Your task to perform on an android device: Search for cool wooden wall art on Etsy. Image 0: 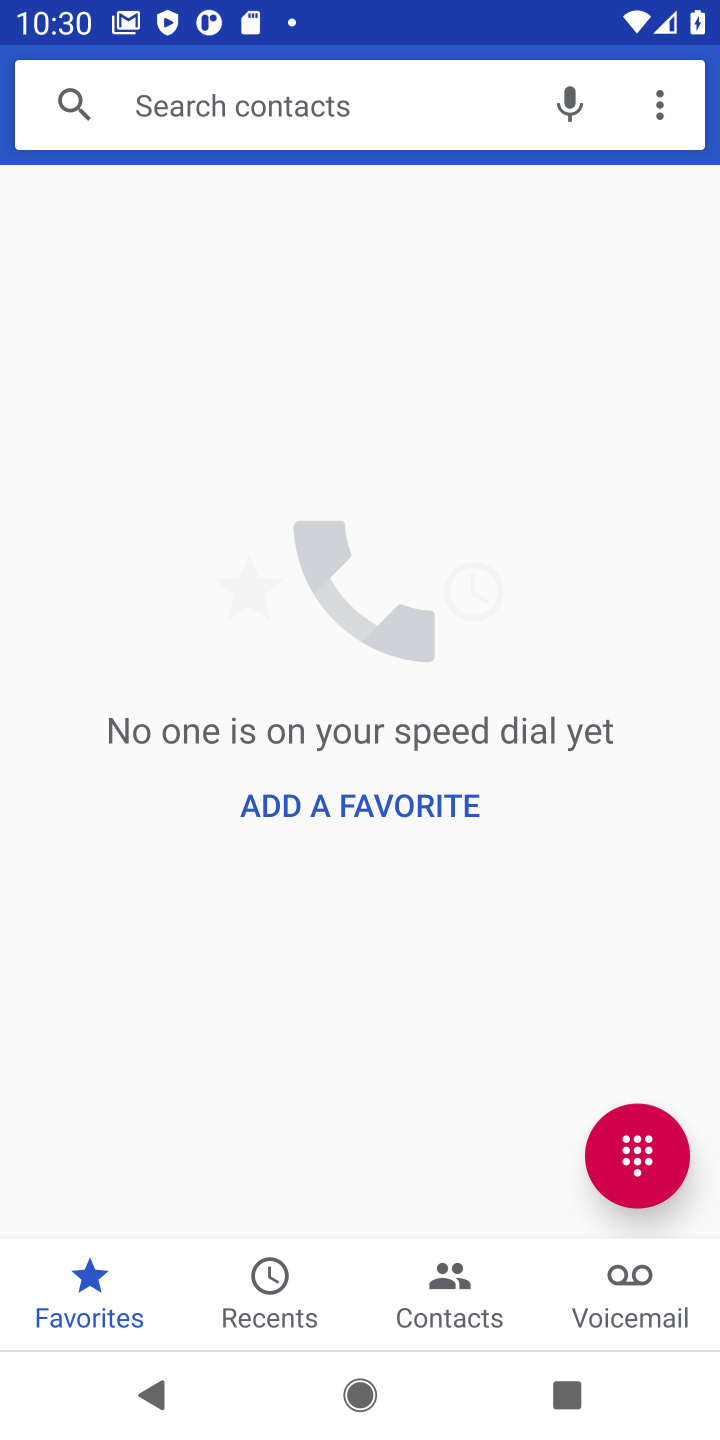
Step 0: press home button
Your task to perform on an android device: Search for cool wooden wall art on Etsy. Image 1: 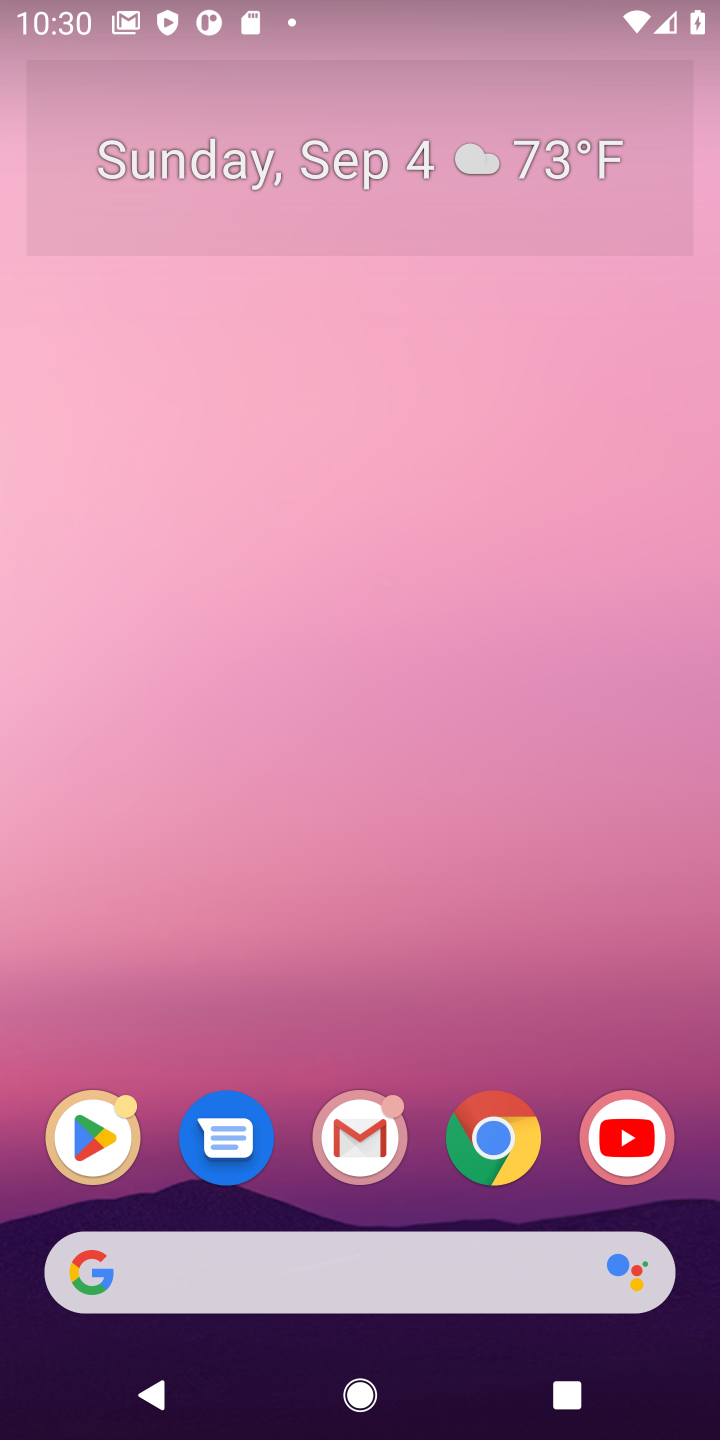
Step 1: click (475, 1120)
Your task to perform on an android device: Search for cool wooden wall art on Etsy. Image 2: 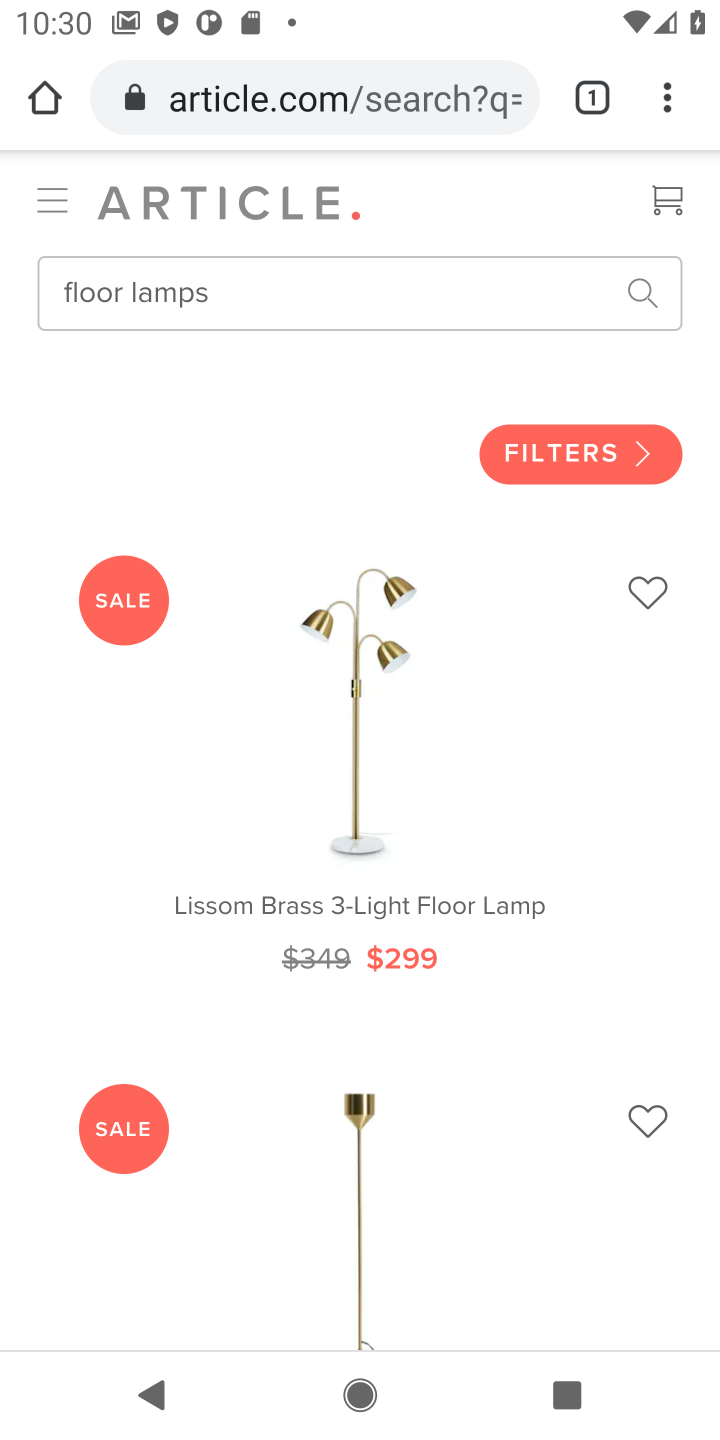
Step 2: click (364, 94)
Your task to perform on an android device: Search for cool wooden wall art on Etsy. Image 3: 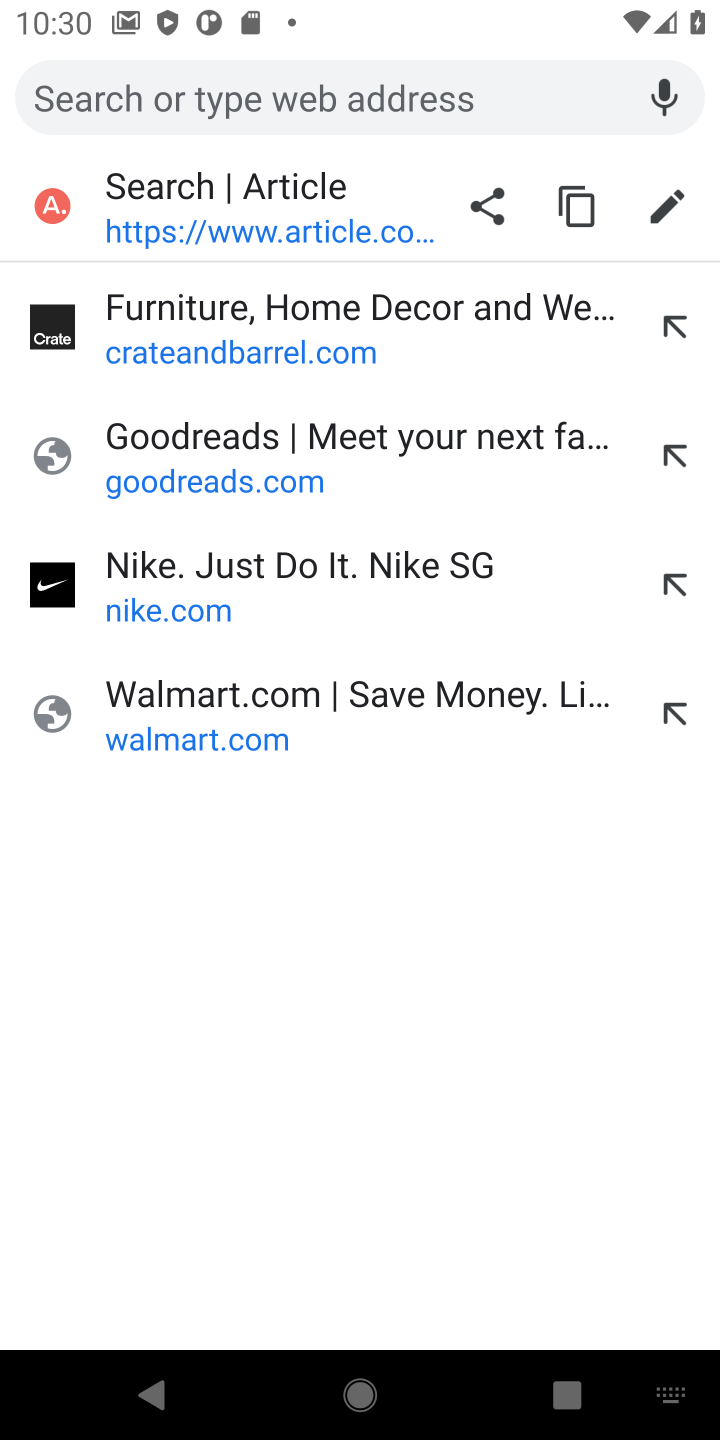
Step 3: type "etsy"
Your task to perform on an android device: Search for cool wooden wall art on Etsy. Image 4: 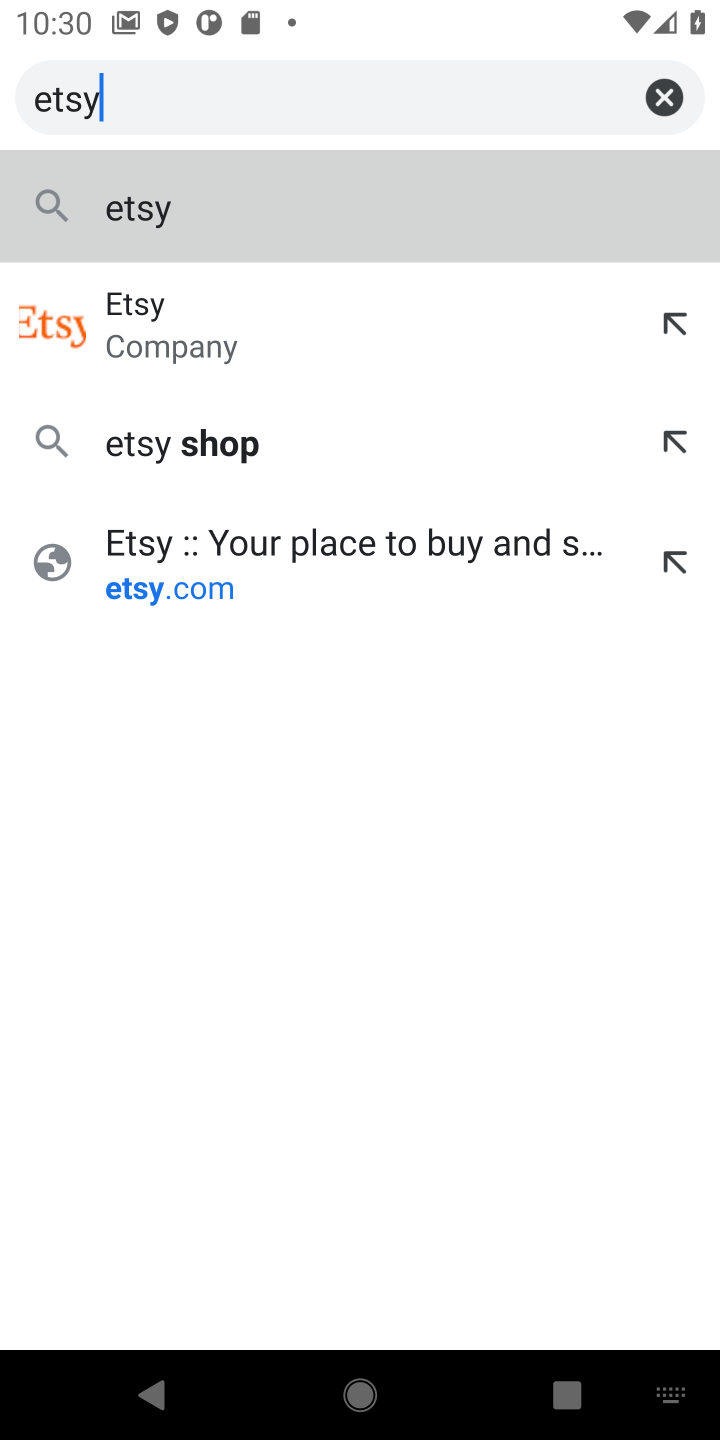
Step 4: click (296, 593)
Your task to perform on an android device: Search for cool wooden wall art on Etsy. Image 5: 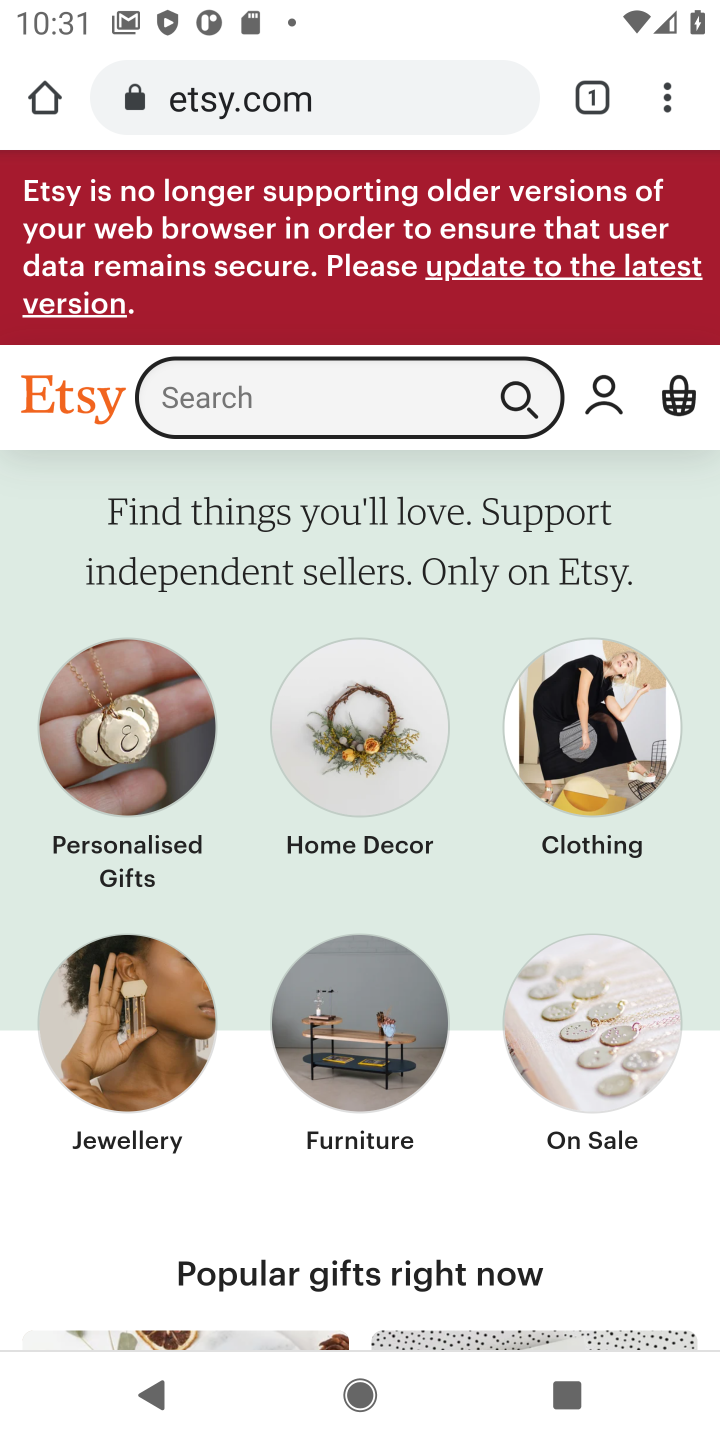
Step 5: click (328, 437)
Your task to perform on an android device: Search for cool wooden wall art on Etsy. Image 6: 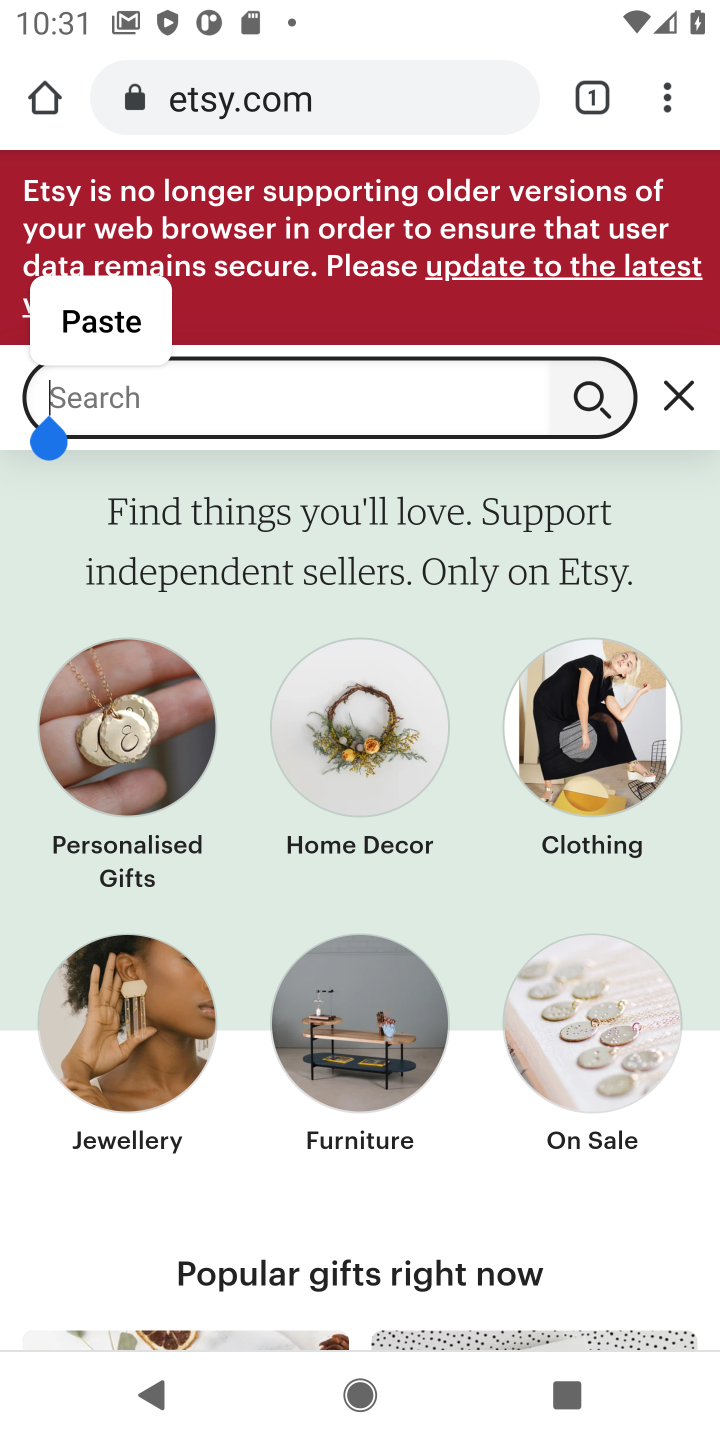
Step 6: type "cool wooden art"
Your task to perform on an android device: Search for cool wooden wall art on Etsy. Image 7: 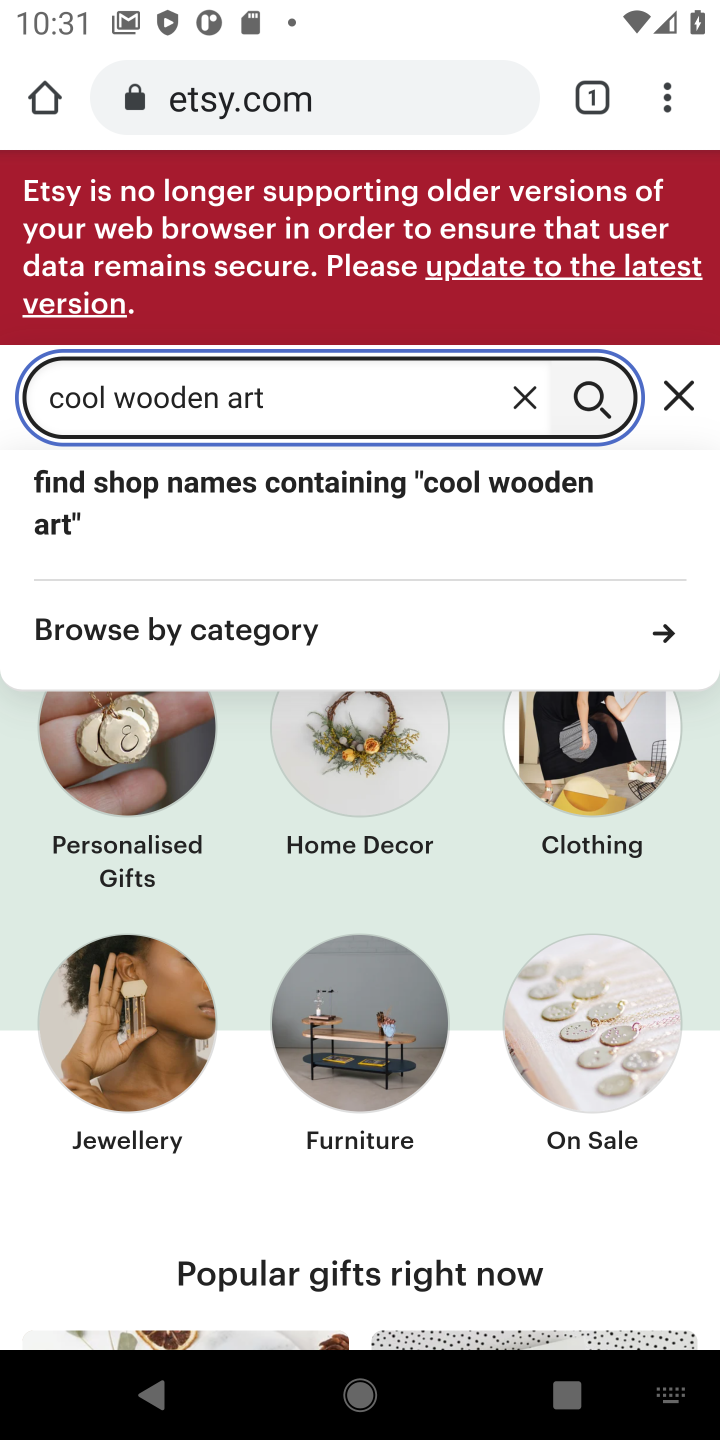
Step 7: press enter
Your task to perform on an android device: Search for cool wooden wall art on Etsy. Image 8: 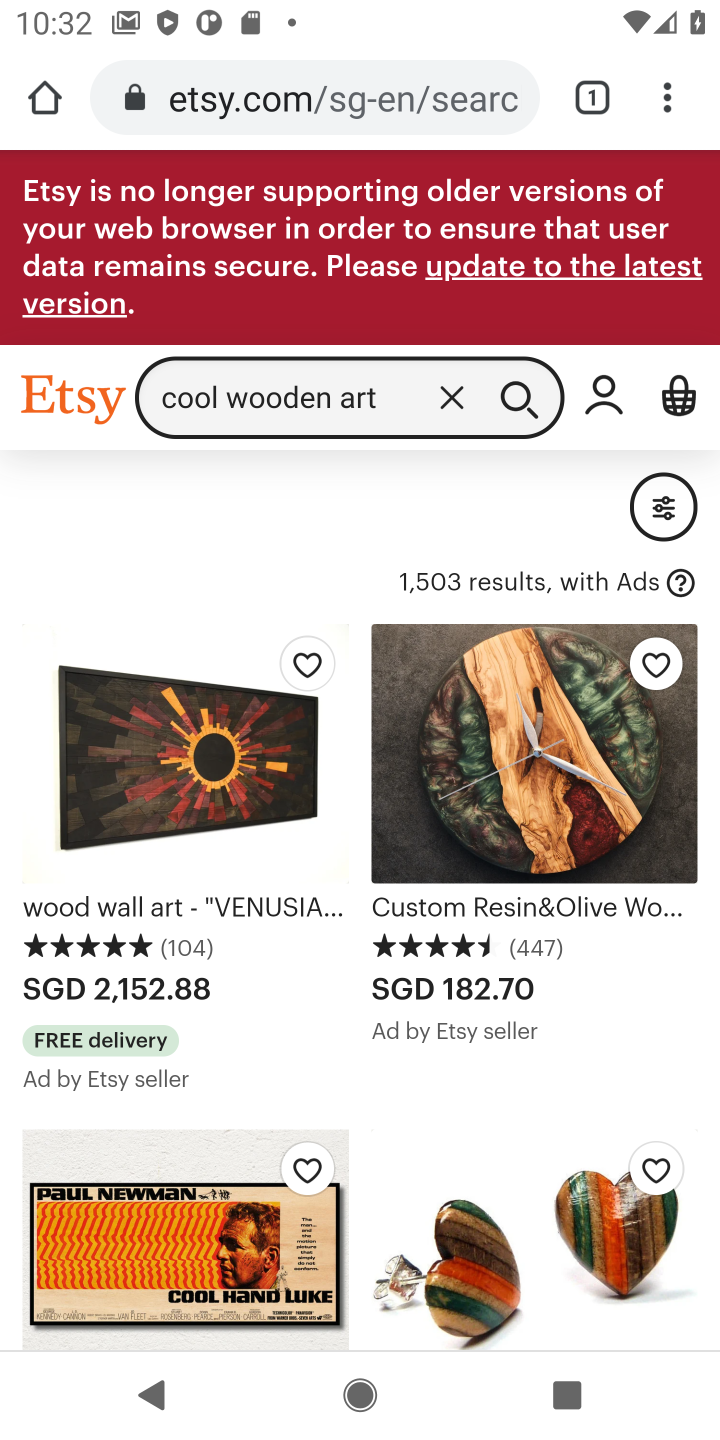
Step 8: task complete